Your task to perform on an android device: Open privacy settings Image 0: 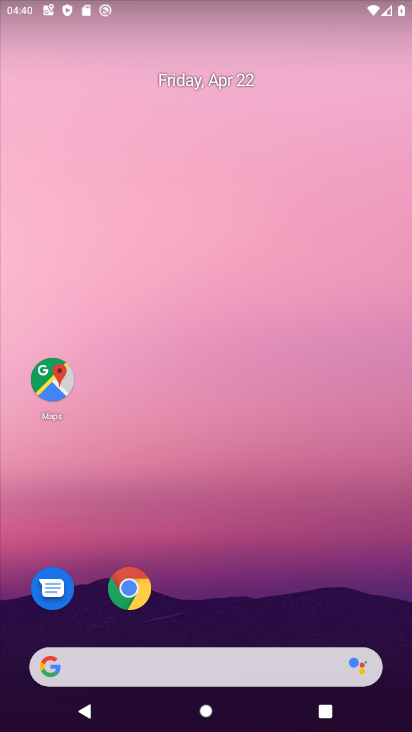
Step 0: drag from (239, 571) to (228, 47)
Your task to perform on an android device: Open privacy settings Image 1: 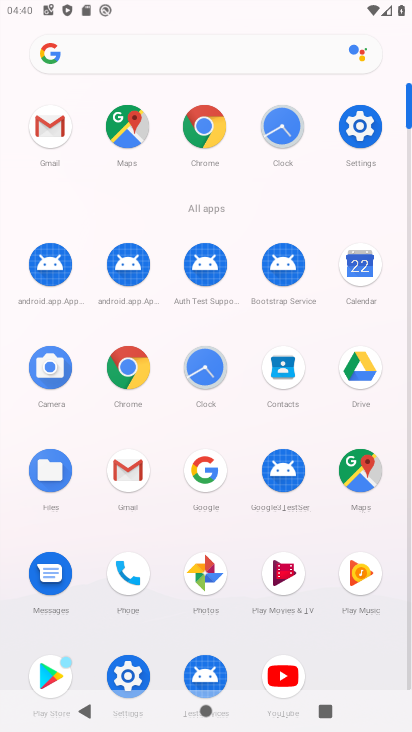
Step 1: click (368, 125)
Your task to perform on an android device: Open privacy settings Image 2: 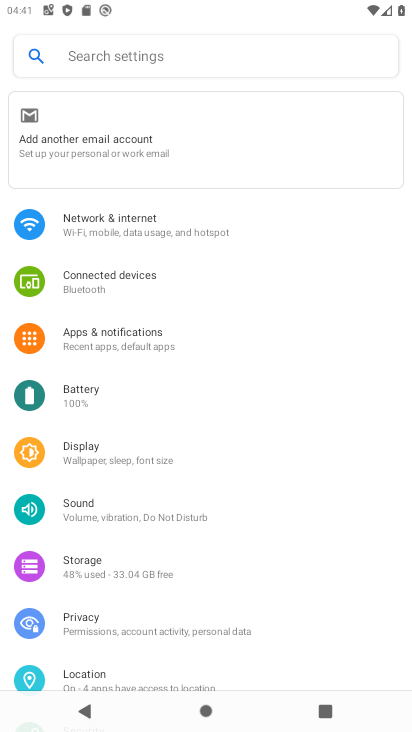
Step 2: click (100, 614)
Your task to perform on an android device: Open privacy settings Image 3: 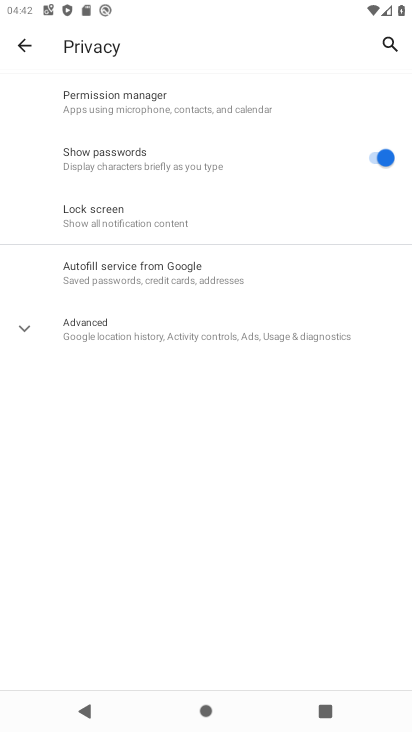
Step 3: task complete